Your task to perform on an android device: Search for custom made wallets on etsy.com Image 0: 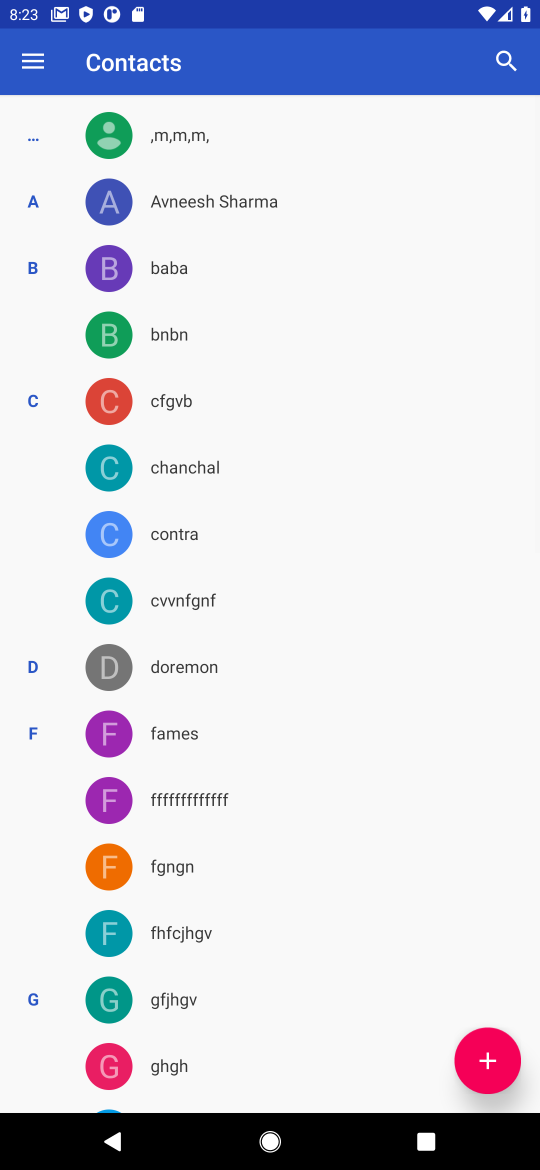
Step 0: press home button
Your task to perform on an android device: Search for custom made wallets on etsy.com Image 1: 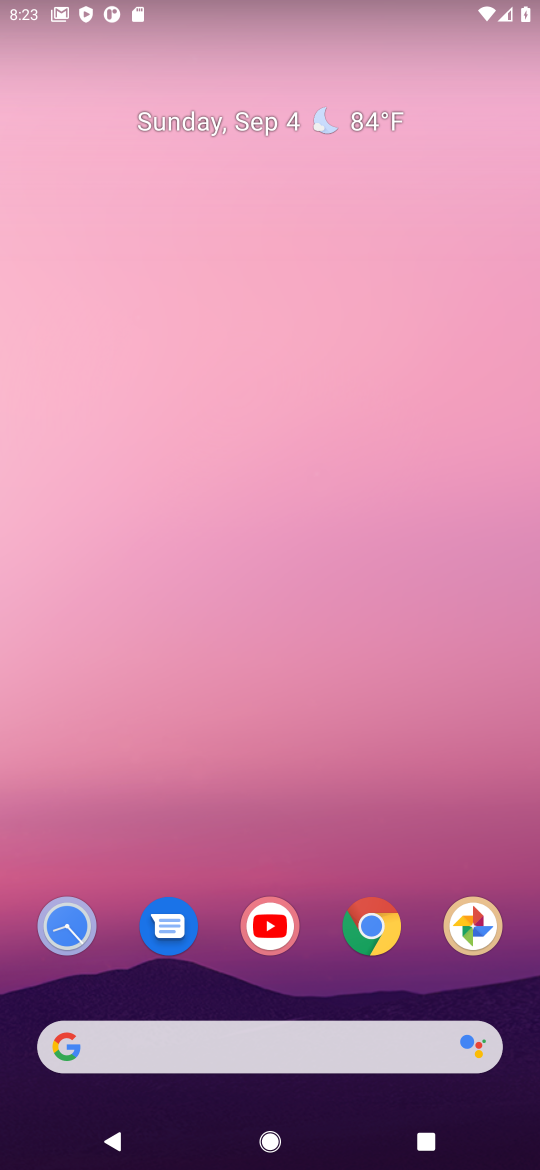
Step 1: click (254, 1046)
Your task to perform on an android device: Search for custom made wallets on etsy.com Image 2: 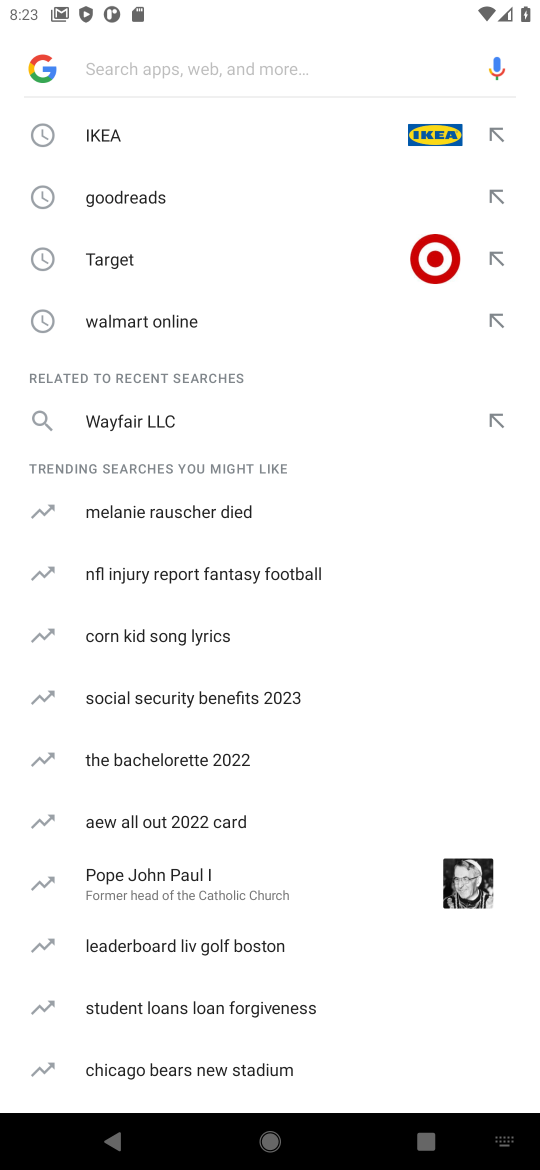
Step 2: type "etsy.com"
Your task to perform on an android device: Search for custom made wallets on etsy.com Image 3: 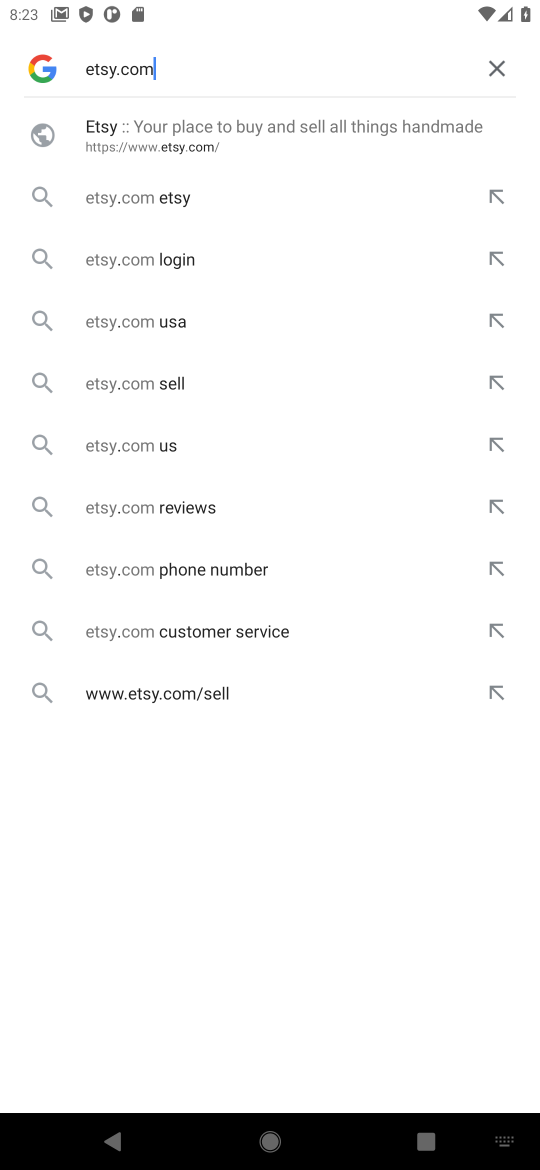
Step 3: click (137, 134)
Your task to perform on an android device: Search for custom made wallets on etsy.com Image 4: 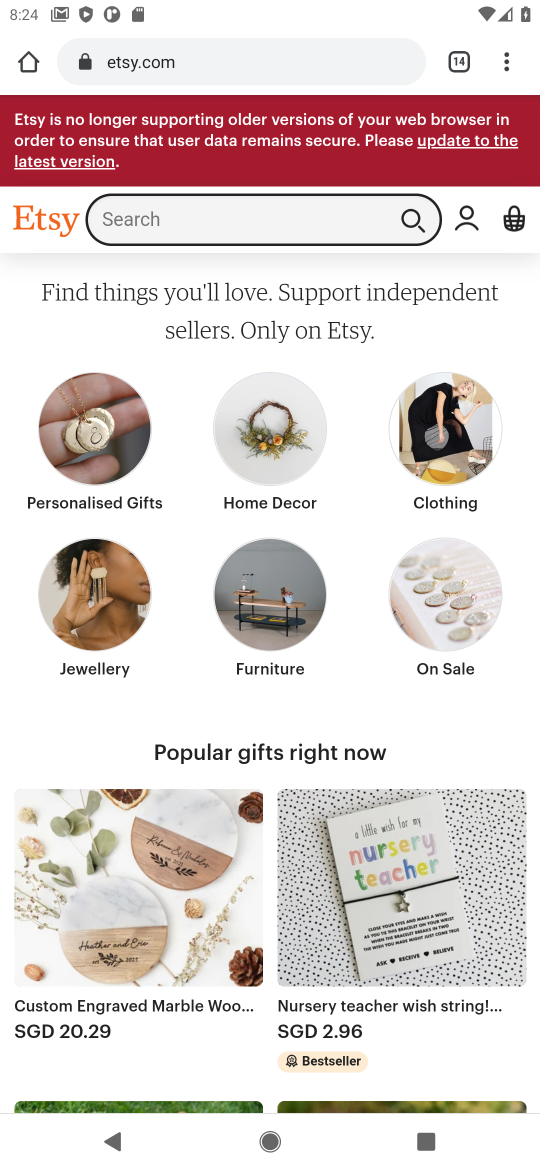
Step 4: click (151, 213)
Your task to perform on an android device: Search for custom made wallets on etsy.com Image 5: 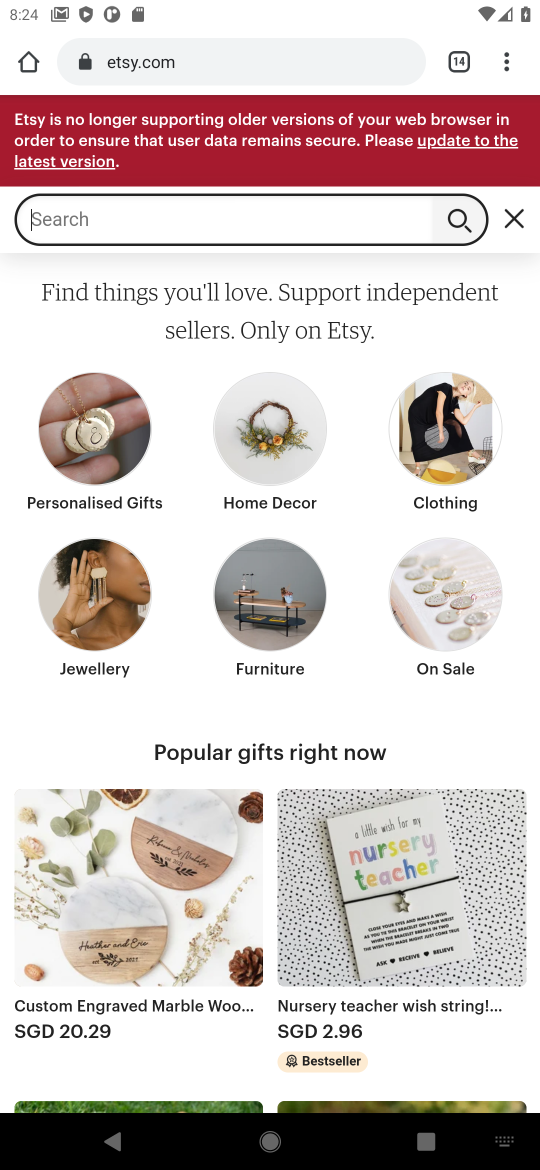
Step 5: type "custom made wallets"
Your task to perform on an android device: Search for custom made wallets on etsy.com Image 6: 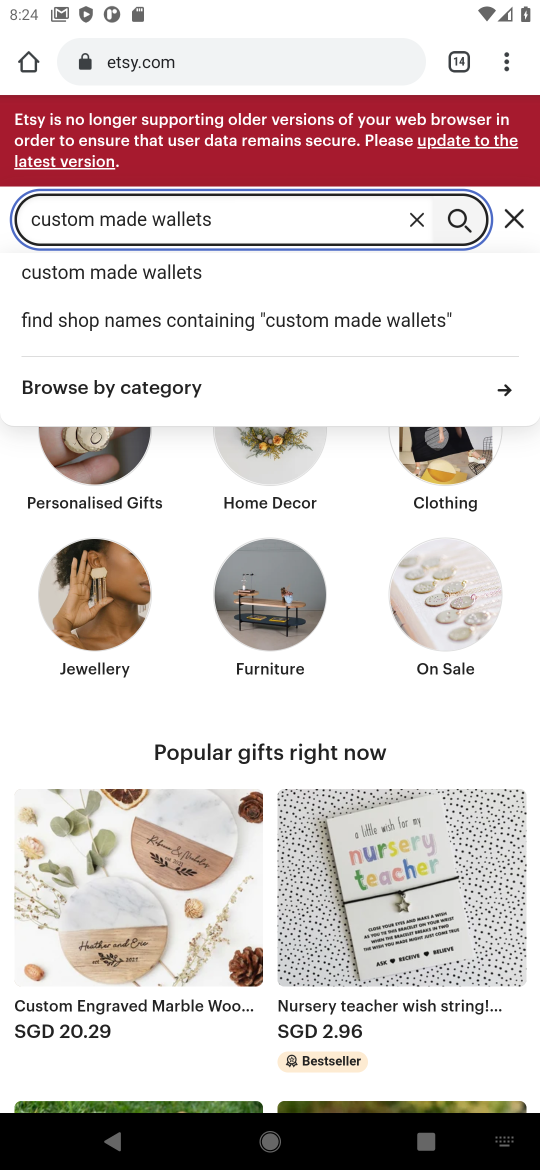
Step 6: click (461, 216)
Your task to perform on an android device: Search for custom made wallets on etsy.com Image 7: 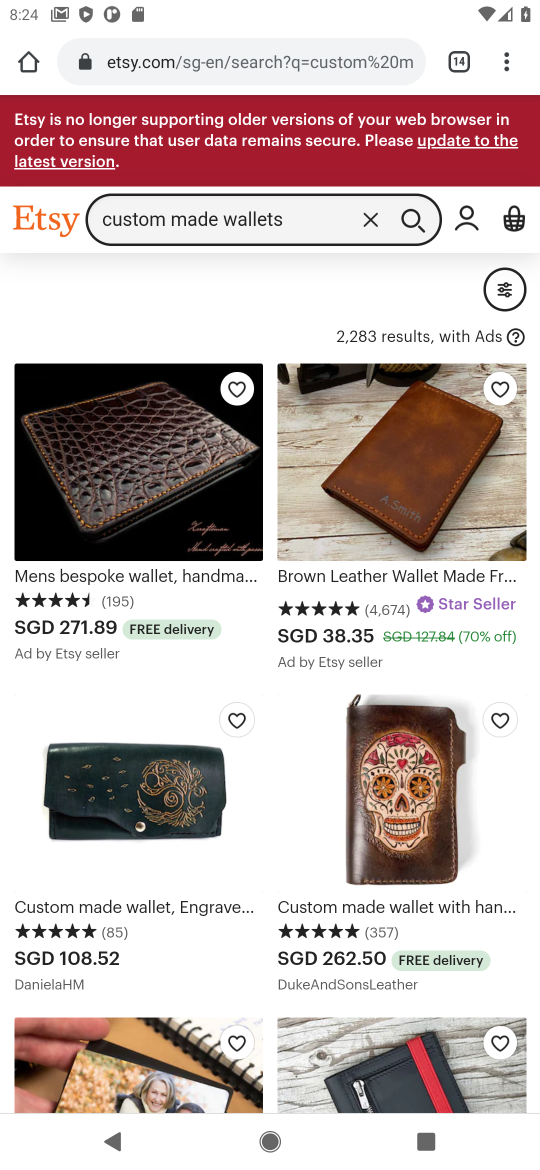
Step 7: task complete